Your task to perform on an android device: check battery use Image 0: 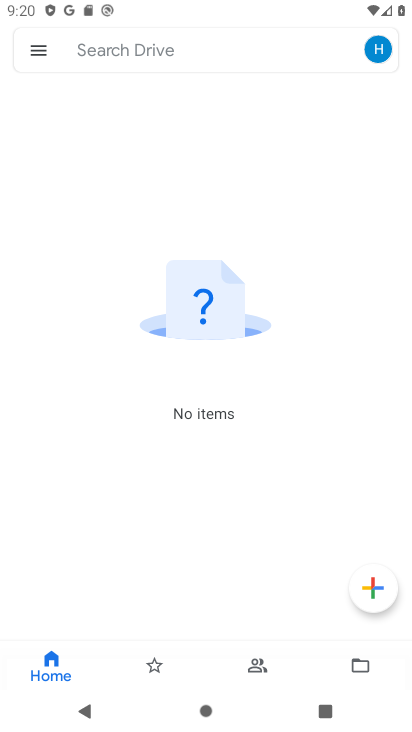
Step 0: press home button
Your task to perform on an android device: check battery use Image 1: 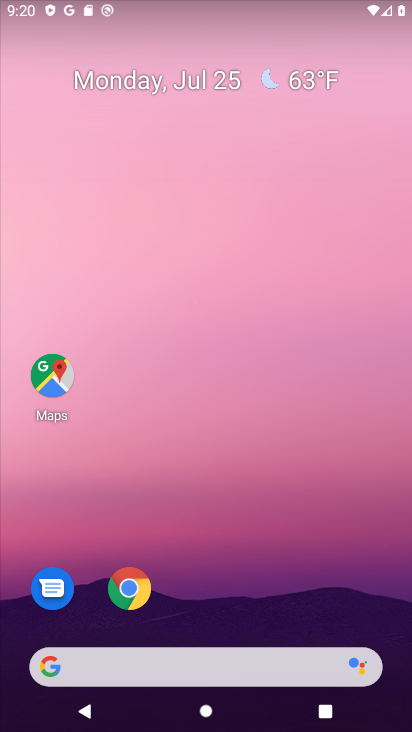
Step 1: drag from (202, 592) to (246, 15)
Your task to perform on an android device: check battery use Image 2: 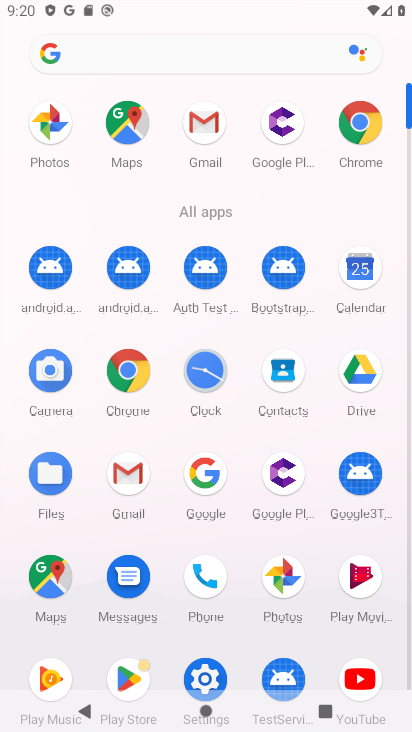
Step 2: click (202, 680)
Your task to perform on an android device: check battery use Image 3: 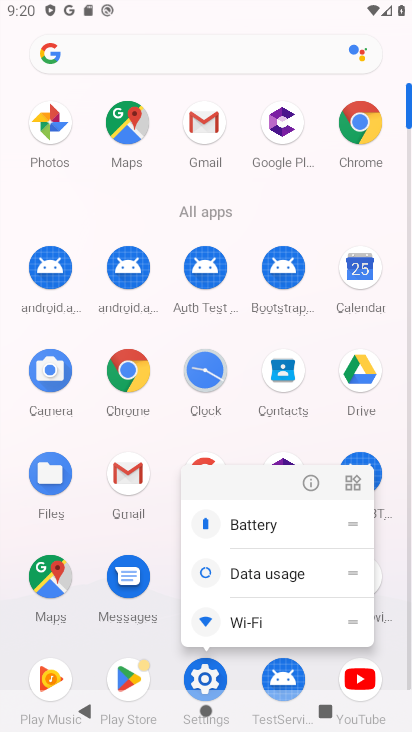
Step 3: click (240, 521)
Your task to perform on an android device: check battery use Image 4: 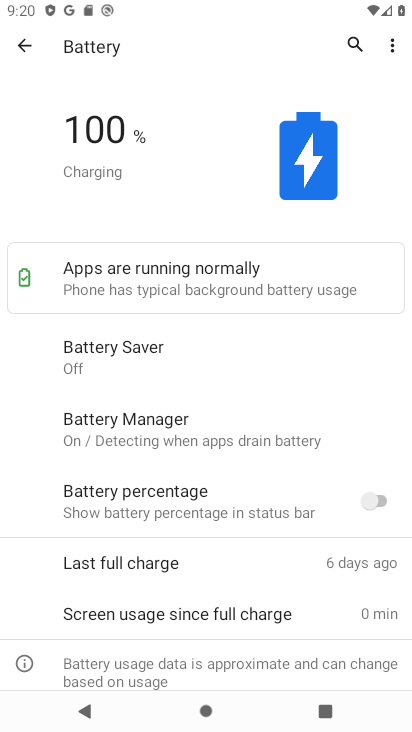
Step 4: task complete